Your task to perform on an android device: turn notification dots off Image 0: 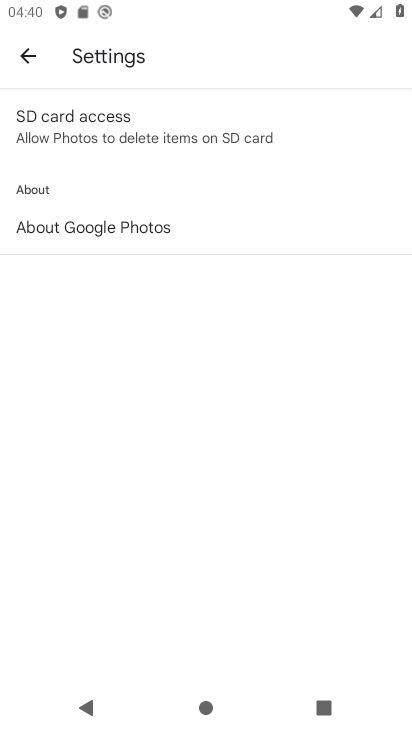
Step 0: press home button
Your task to perform on an android device: turn notification dots off Image 1: 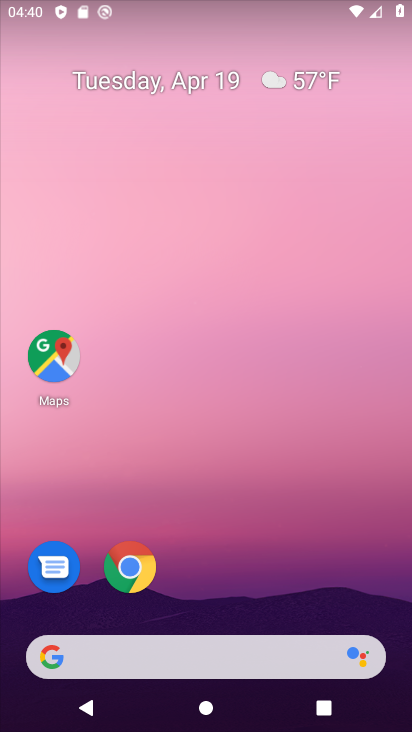
Step 1: drag from (364, 591) to (371, 149)
Your task to perform on an android device: turn notification dots off Image 2: 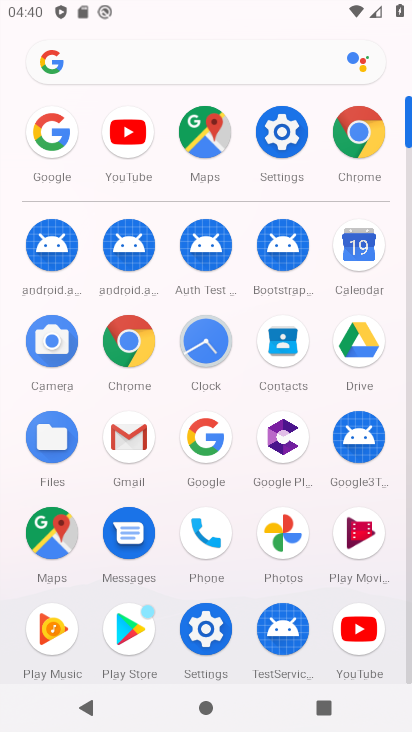
Step 2: click (288, 154)
Your task to perform on an android device: turn notification dots off Image 3: 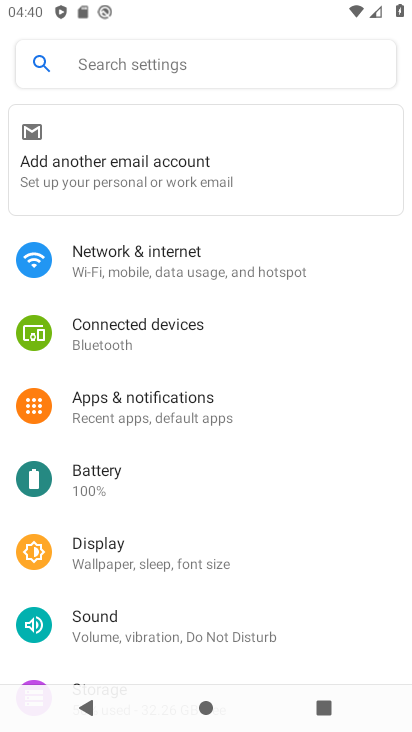
Step 3: drag from (352, 593) to (352, 471)
Your task to perform on an android device: turn notification dots off Image 4: 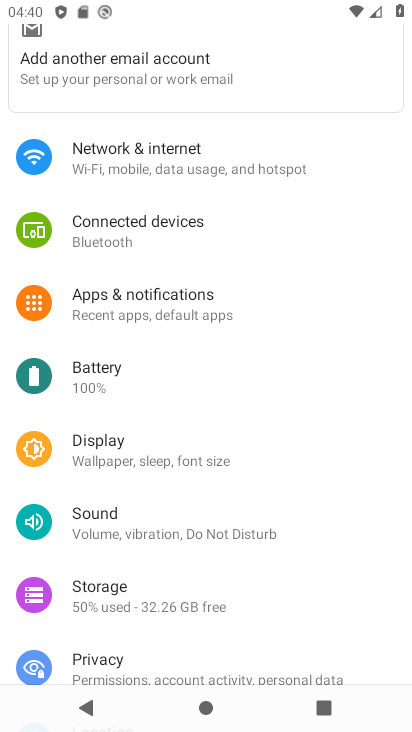
Step 4: drag from (335, 615) to (354, 456)
Your task to perform on an android device: turn notification dots off Image 5: 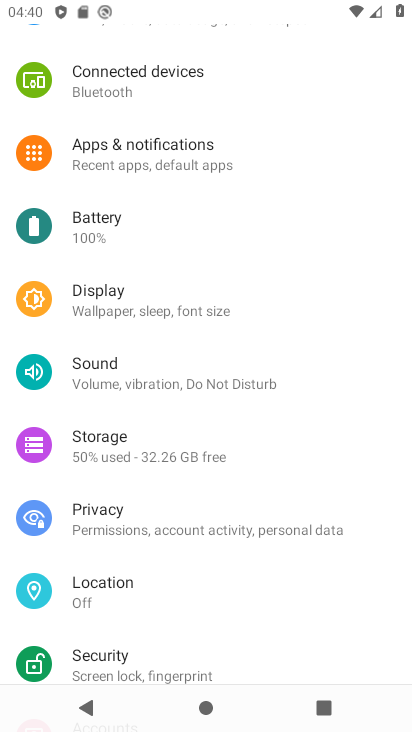
Step 5: drag from (359, 620) to (359, 478)
Your task to perform on an android device: turn notification dots off Image 6: 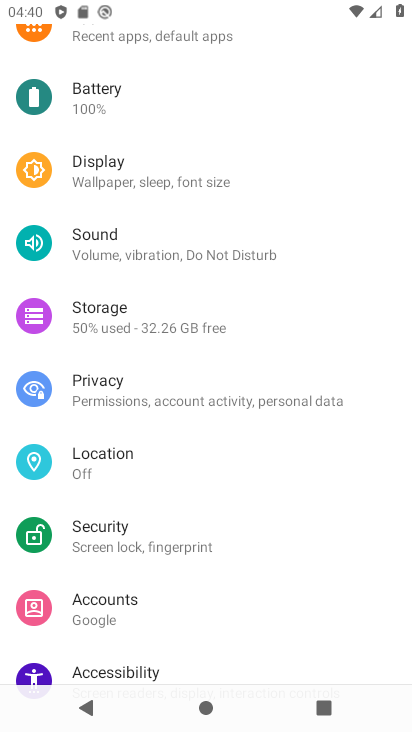
Step 6: drag from (352, 615) to (347, 456)
Your task to perform on an android device: turn notification dots off Image 7: 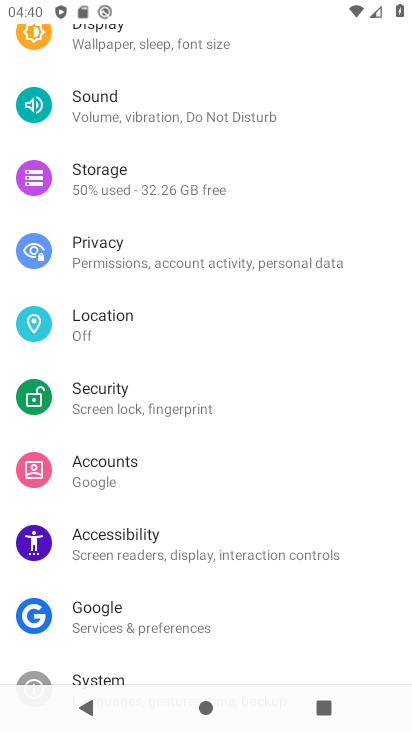
Step 7: drag from (362, 634) to (370, 475)
Your task to perform on an android device: turn notification dots off Image 8: 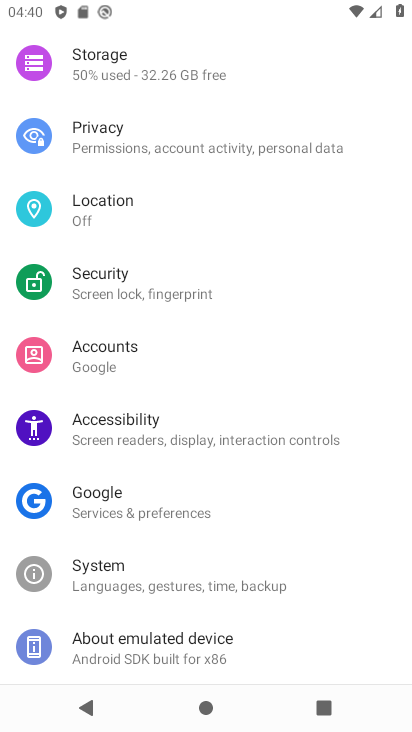
Step 8: drag from (373, 372) to (350, 530)
Your task to perform on an android device: turn notification dots off Image 9: 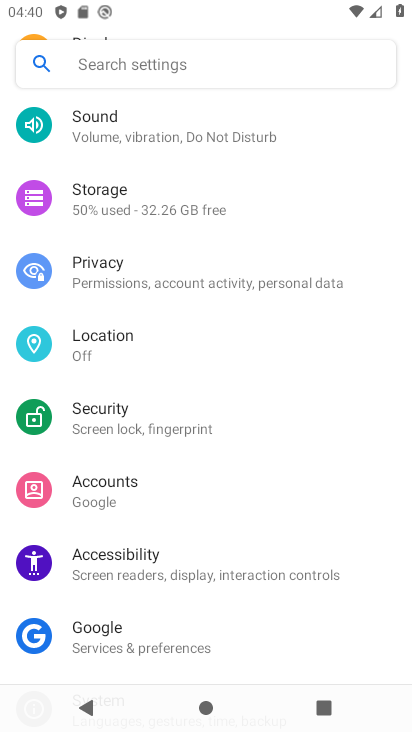
Step 9: drag from (363, 448) to (364, 550)
Your task to perform on an android device: turn notification dots off Image 10: 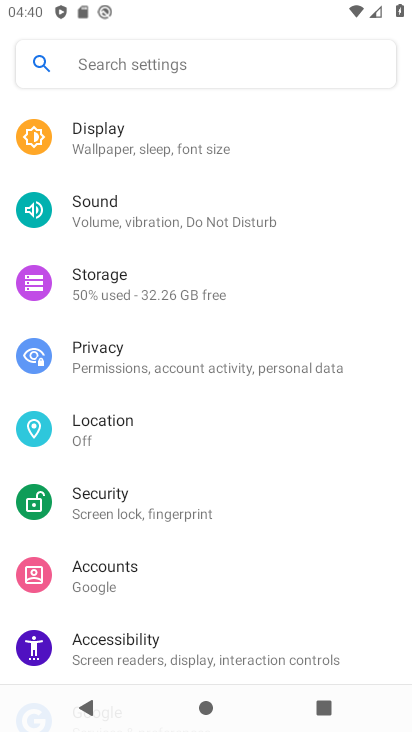
Step 10: drag from (374, 406) to (350, 559)
Your task to perform on an android device: turn notification dots off Image 11: 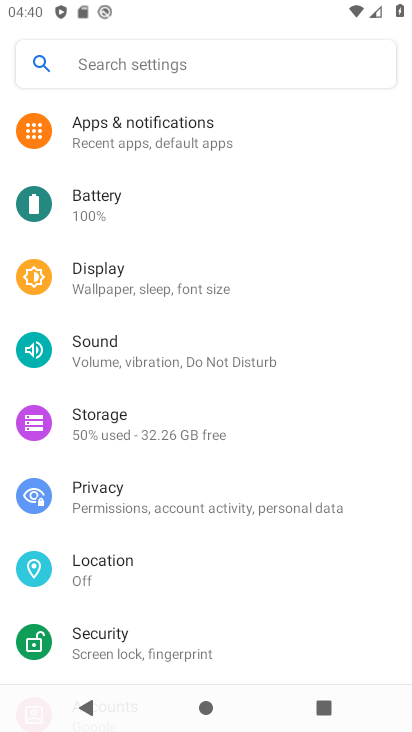
Step 11: drag from (353, 425) to (350, 569)
Your task to perform on an android device: turn notification dots off Image 12: 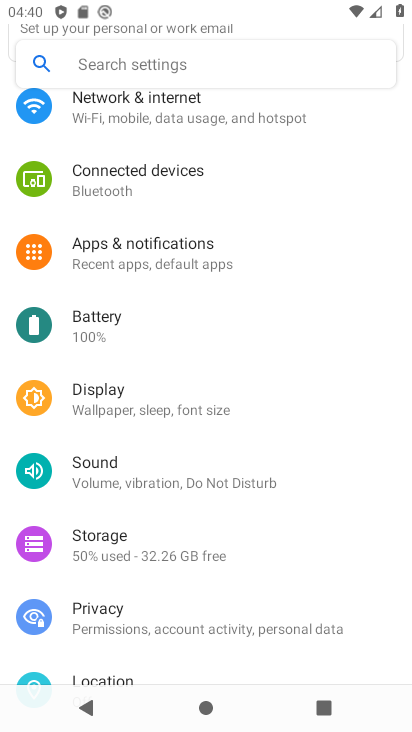
Step 12: drag from (353, 413) to (357, 548)
Your task to perform on an android device: turn notification dots off Image 13: 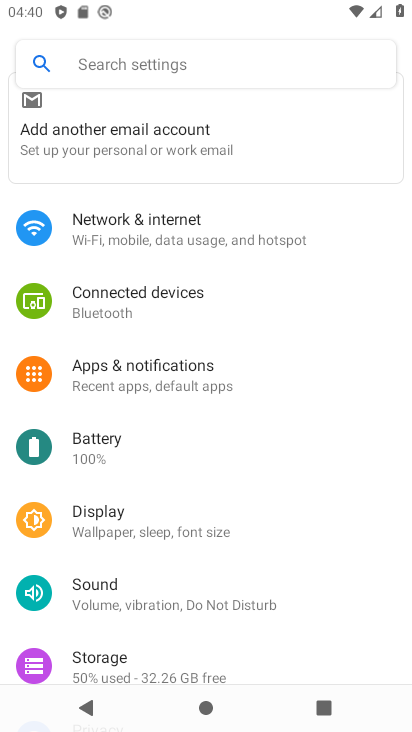
Step 13: drag from (331, 390) to (334, 524)
Your task to perform on an android device: turn notification dots off Image 14: 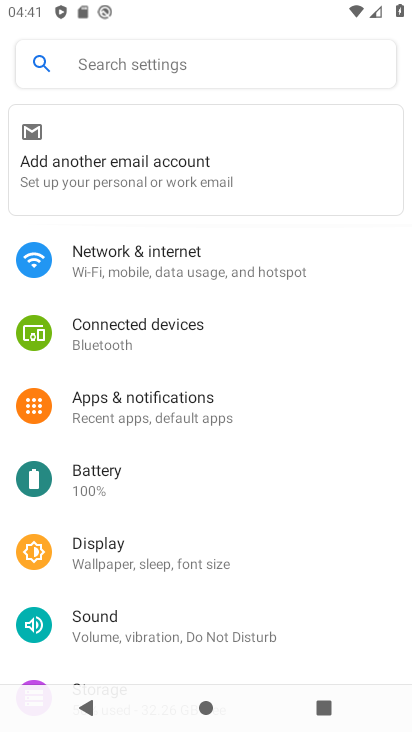
Step 14: click (193, 411)
Your task to perform on an android device: turn notification dots off Image 15: 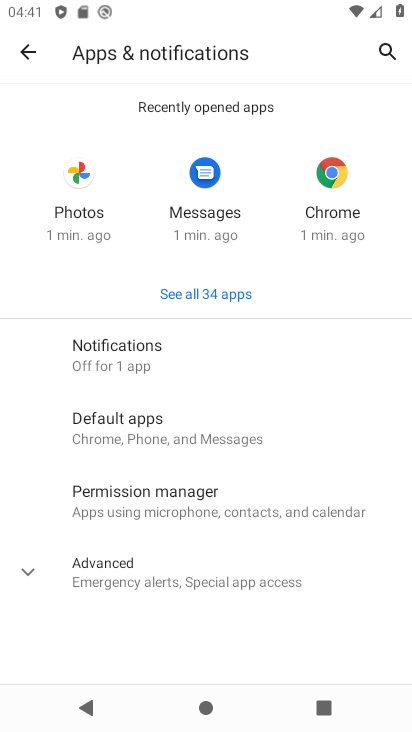
Step 15: click (141, 354)
Your task to perform on an android device: turn notification dots off Image 16: 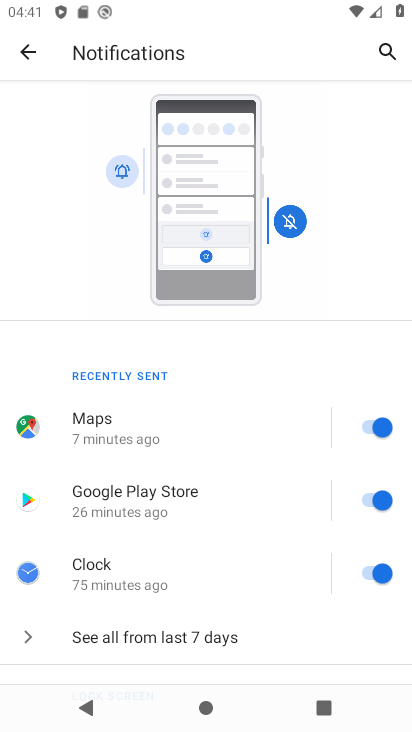
Step 16: drag from (276, 556) to (272, 376)
Your task to perform on an android device: turn notification dots off Image 17: 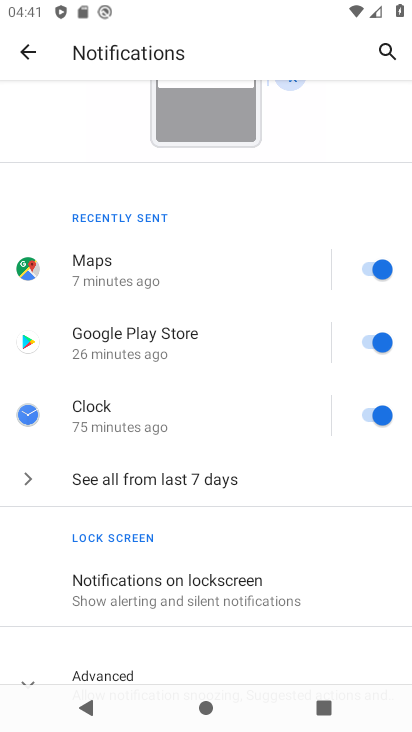
Step 17: drag from (280, 530) to (291, 369)
Your task to perform on an android device: turn notification dots off Image 18: 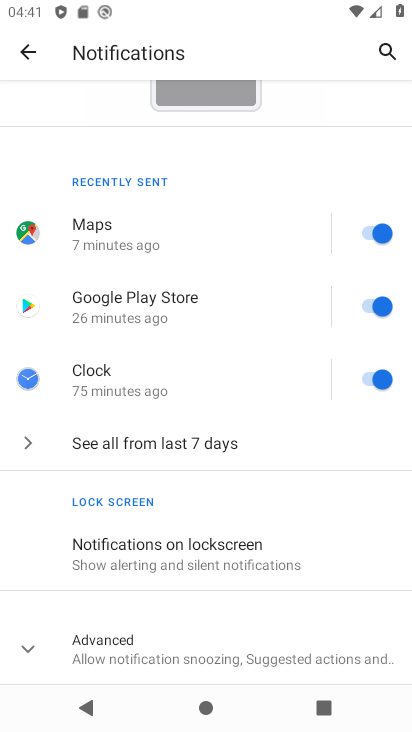
Step 18: click (222, 654)
Your task to perform on an android device: turn notification dots off Image 19: 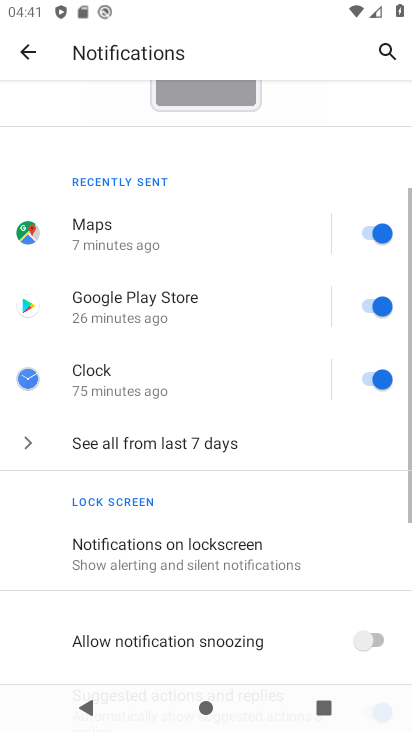
Step 19: drag from (285, 623) to (288, 378)
Your task to perform on an android device: turn notification dots off Image 20: 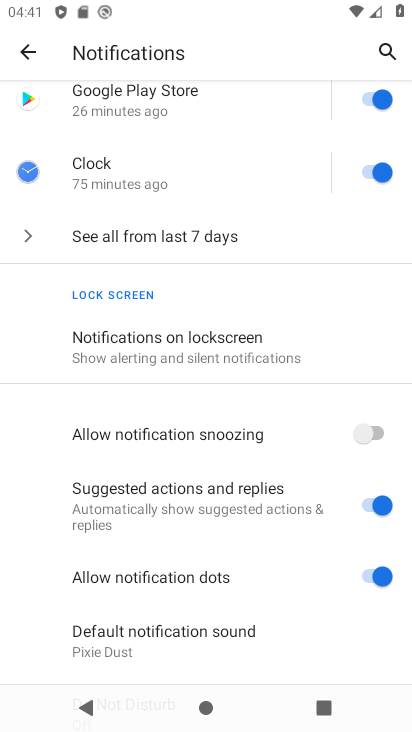
Step 20: drag from (278, 573) to (278, 395)
Your task to perform on an android device: turn notification dots off Image 21: 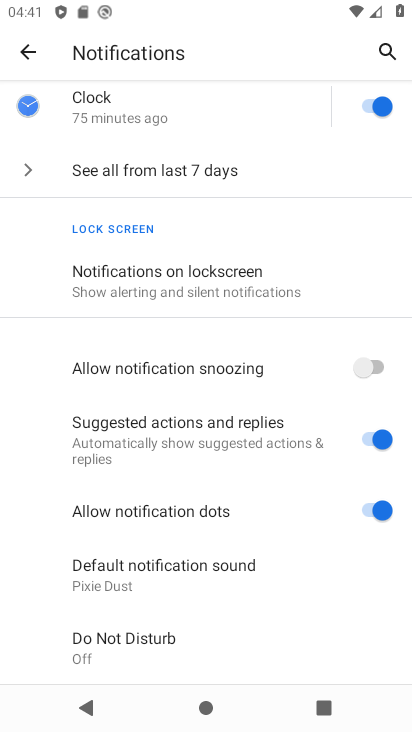
Step 21: click (380, 508)
Your task to perform on an android device: turn notification dots off Image 22: 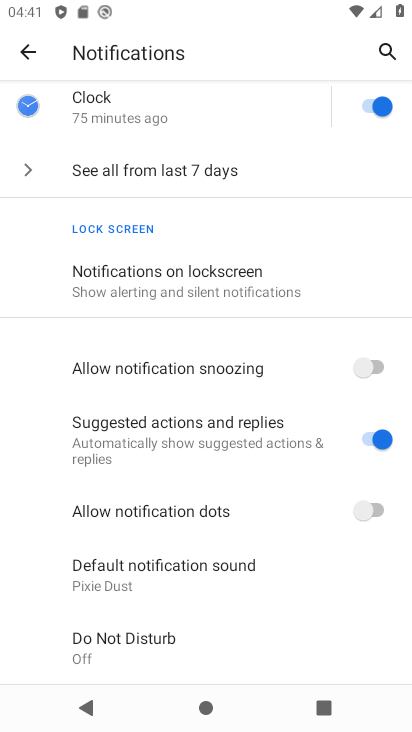
Step 22: task complete